Your task to perform on an android device: toggle show notifications on the lock screen Image 0: 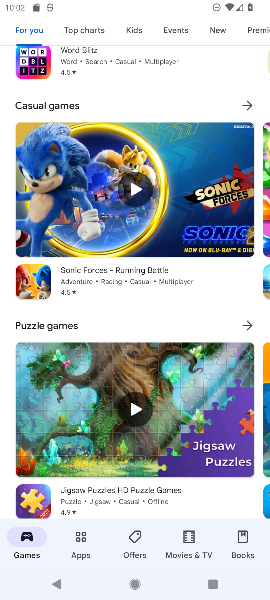
Step 0: drag from (179, 498) to (171, 198)
Your task to perform on an android device: toggle show notifications on the lock screen Image 1: 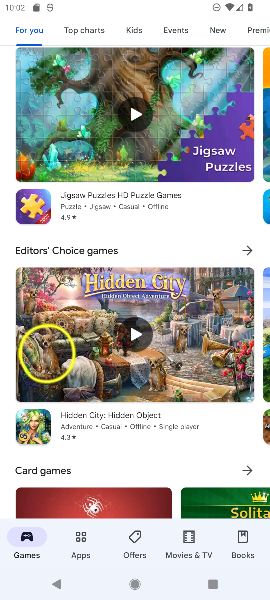
Step 1: drag from (161, 445) to (139, 227)
Your task to perform on an android device: toggle show notifications on the lock screen Image 2: 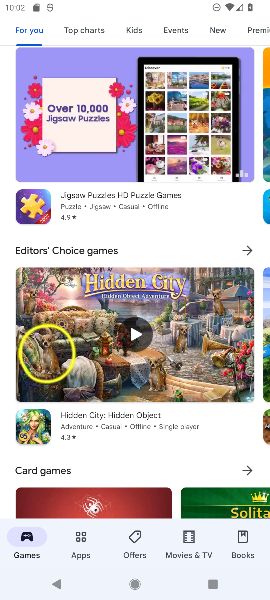
Step 2: drag from (199, 453) to (183, 233)
Your task to perform on an android device: toggle show notifications on the lock screen Image 3: 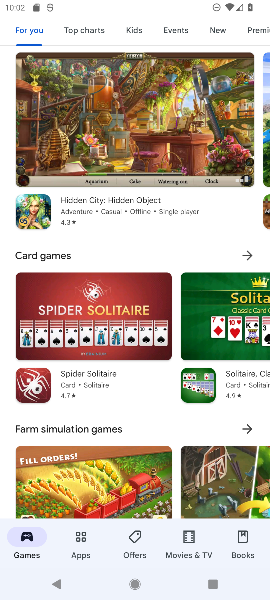
Step 3: drag from (172, 197) to (163, 100)
Your task to perform on an android device: toggle show notifications on the lock screen Image 4: 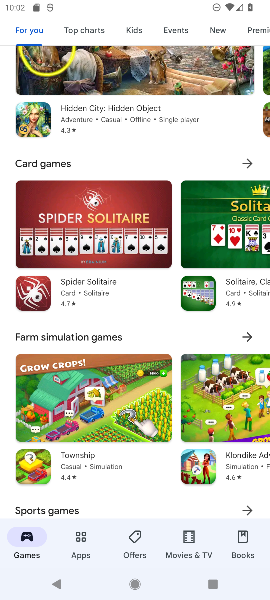
Step 4: press home button
Your task to perform on an android device: toggle show notifications on the lock screen Image 5: 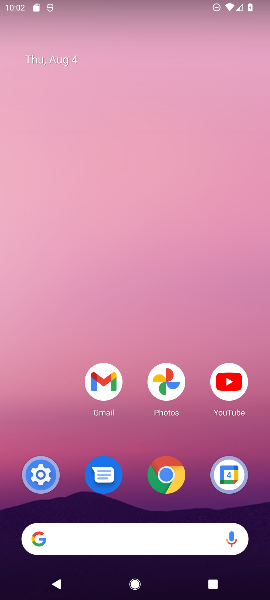
Step 5: drag from (137, 495) to (156, 154)
Your task to perform on an android device: toggle show notifications on the lock screen Image 6: 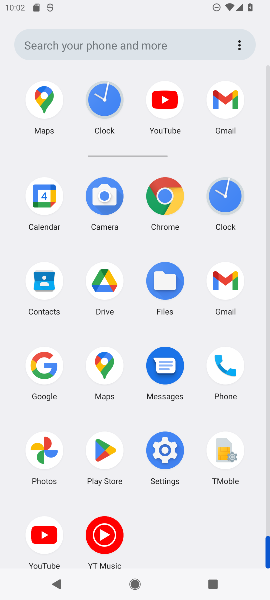
Step 6: click (158, 457)
Your task to perform on an android device: toggle show notifications on the lock screen Image 7: 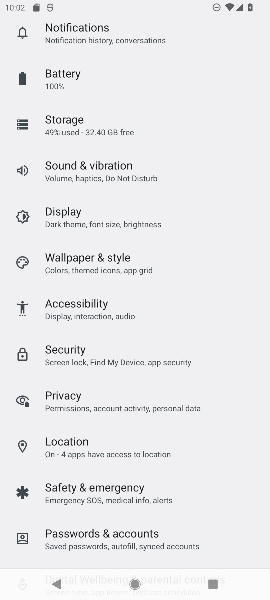
Step 7: drag from (129, 133) to (129, 490)
Your task to perform on an android device: toggle show notifications on the lock screen Image 8: 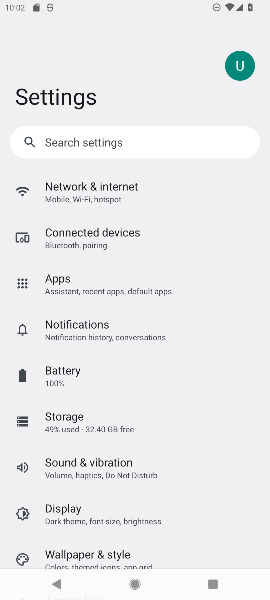
Step 8: click (93, 319)
Your task to perform on an android device: toggle show notifications on the lock screen Image 9: 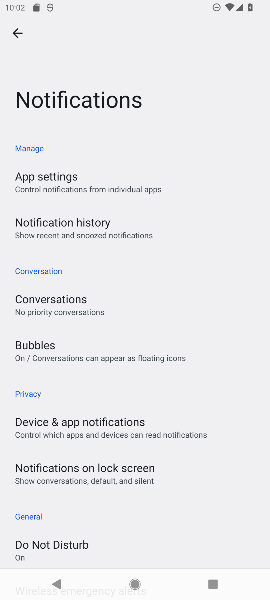
Step 9: click (101, 475)
Your task to perform on an android device: toggle show notifications on the lock screen Image 10: 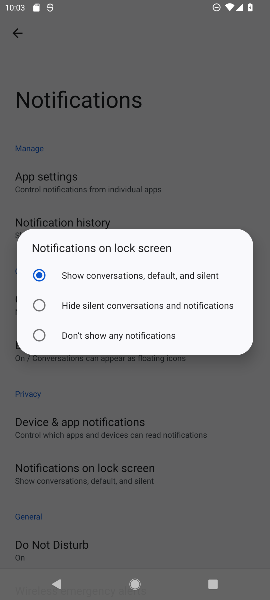
Step 10: click (76, 306)
Your task to perform on an android device: toggle show notifications on the lock screen Image 11: 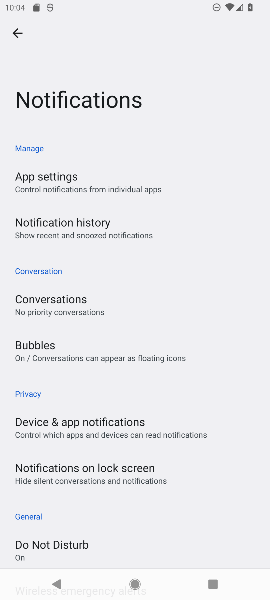
Step 11: drag from (95, 499) to (154, 190)
Your task to perform on an android device: toggle show notifications on the lock screen Image 12: 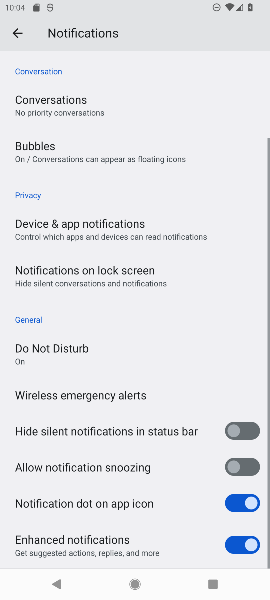
Step 12: drag from (142, 180) to (207, 597)
Your task to perform on an android device: toggle show notifications on the lock screen Image 13: 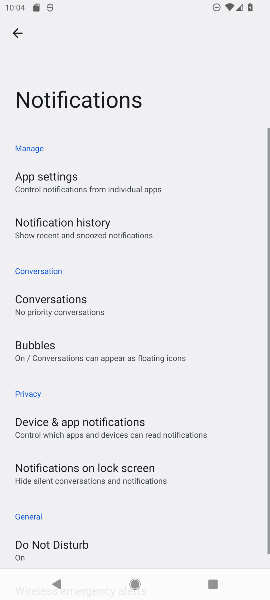
Step 13: click (91, 478)
Your task to perform on an android device: toggle show notifications on the lock screen Image 14: 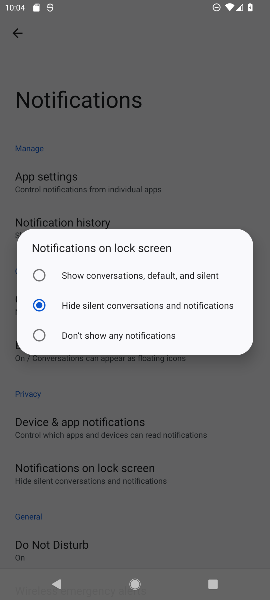
Step 14: click (128, 268)
Your task to perform on an android device: toggle show notifications on the lock screen Image 15: 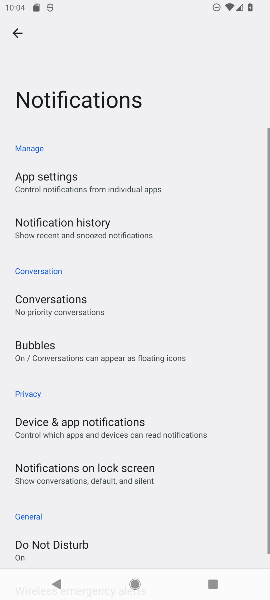
Step 15: task complete